Your task to perform on an android device: Show me the alarms in the clock app Image 0: 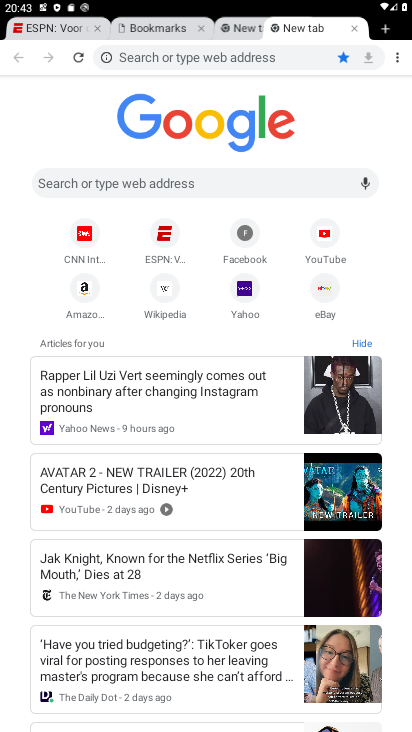
Step 0: press home button
Your task to perform on an android device: Show me the alarms in the clock app Image 1: 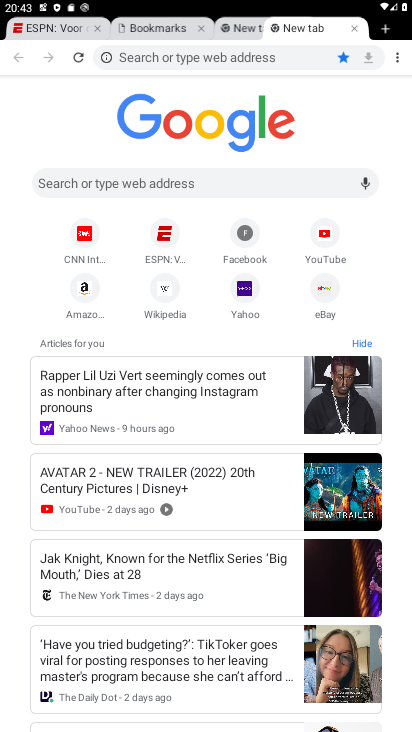
Step 1: press home button
Your task to perform on an android device: Show me the alarms in the clock app Image 2: 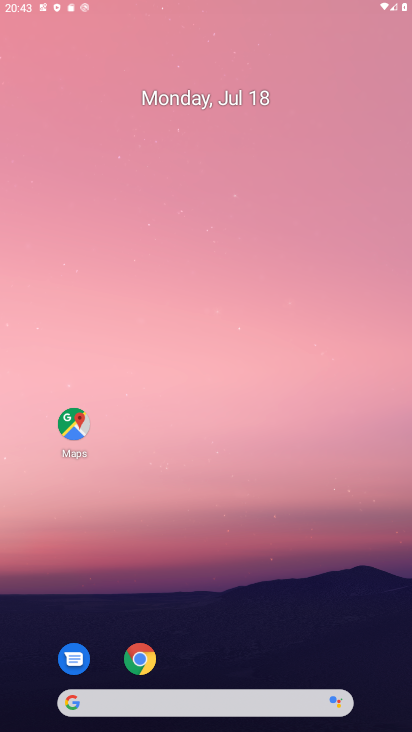
Step 2: press back button
Your task to perform on an android device: Show me the alarms in the clock app Image 3: 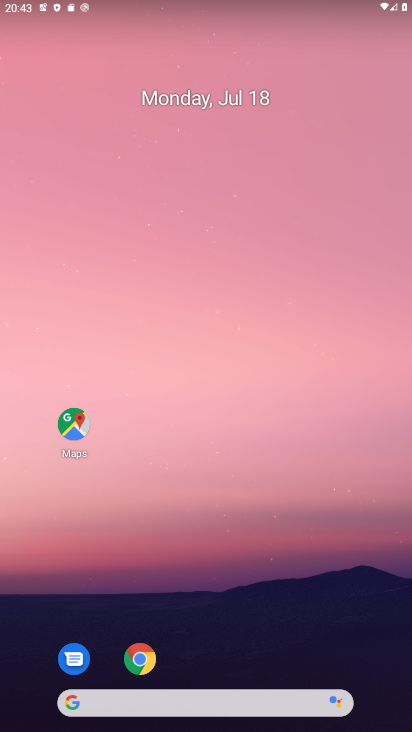
Step 3: drag from (240, 553) to (127, 166)
Your task to perform on an android device: Show me the alarms in the clock app Image 4: 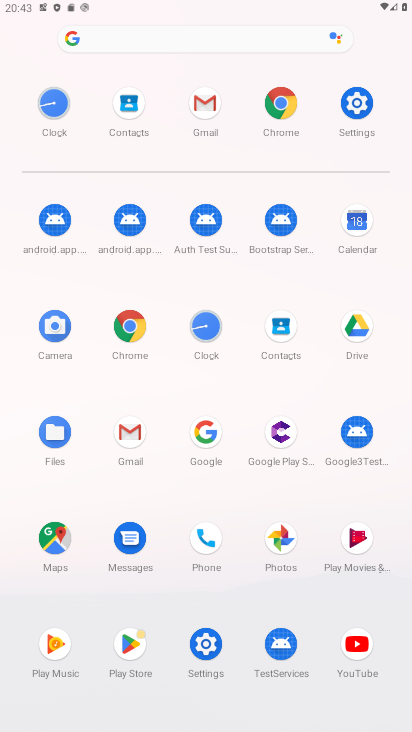
Step 4: click (197, 329)
Your task to perform on an android device: Show me the alarms in the clock app Image 5: 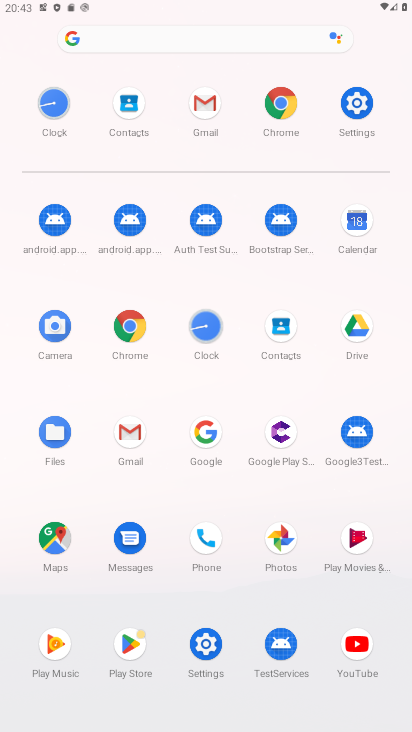
Step 5: click (197, 329)
Your task to perform on an android device: Show me the alarms in the clock app Image 6: 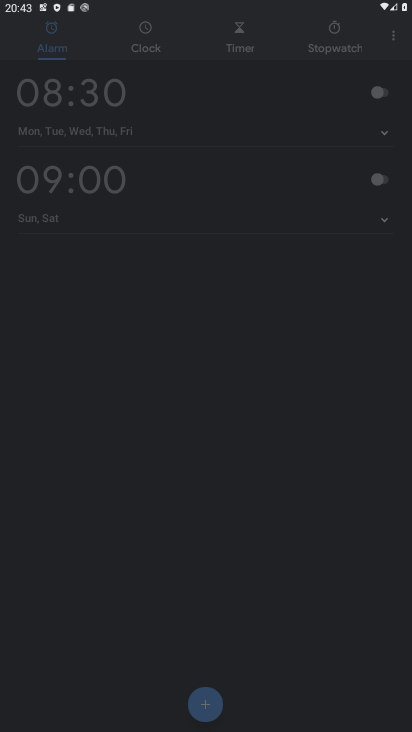
Step 6: click (198, 330)
Your task to perform on an android device: Show me the alarms in the clock app Image 7: 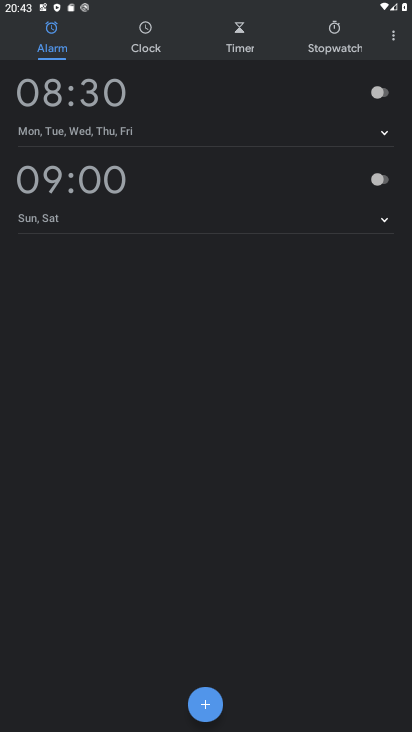
Step 7: click (198, 330)
Your task to perform on an android device: Show me the alarms in the clock app Image 8: 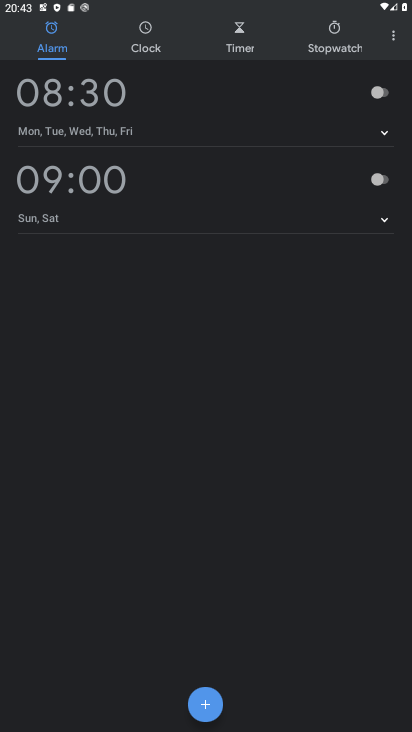
Step 8: click (68, 46)
Your task to perform on an android device: Show me the alarms in the clock app Image 9: 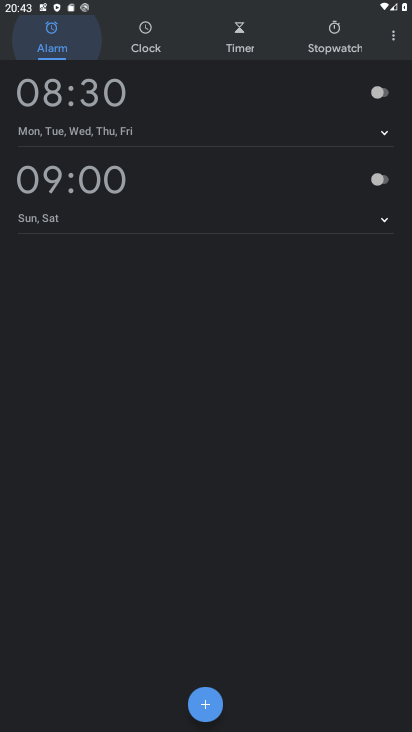
Step 9: click (67, 45)
Your task to perform on an android device: Show me the alarms in the clock app Image 10: 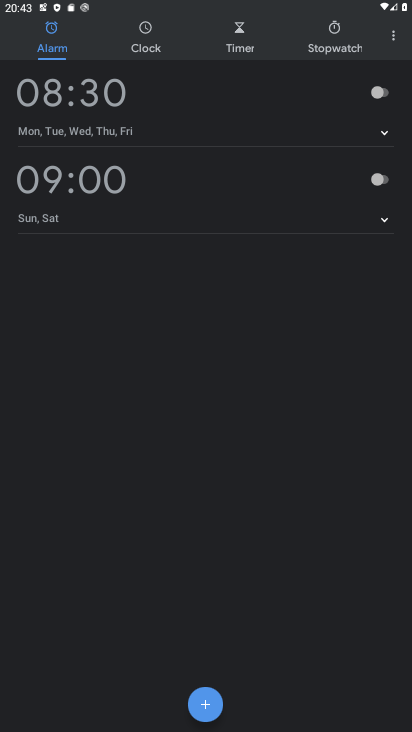
Step 10: task complete